Your task to perform on an android device: find which apps use the phone's location Image 0: 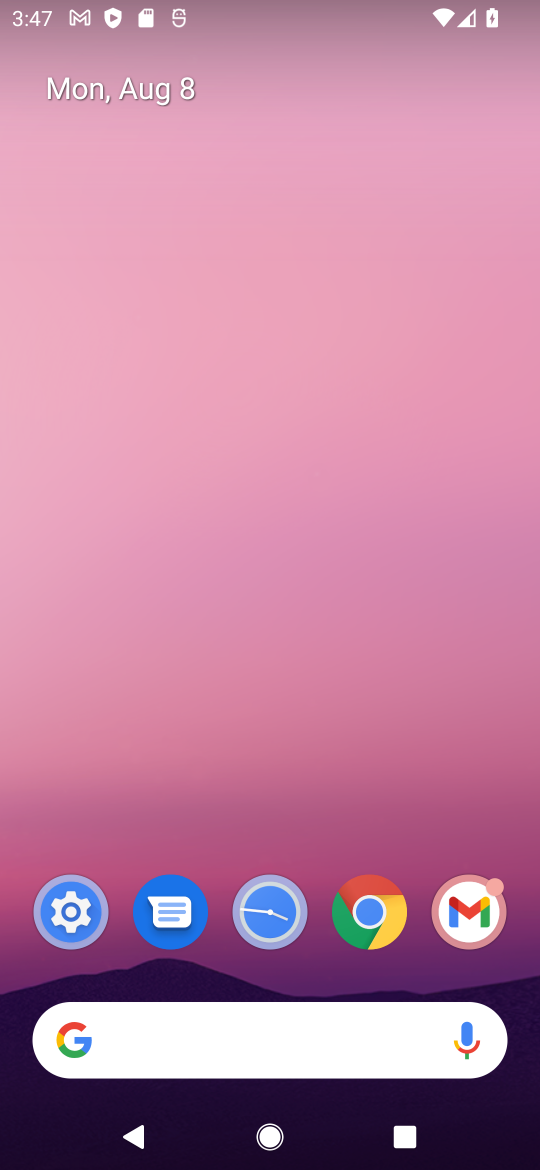
Step 0: drag from (127, 658) to (338, 198)
Your task to perform on an android device: find which apps use the phone's location Image 1: 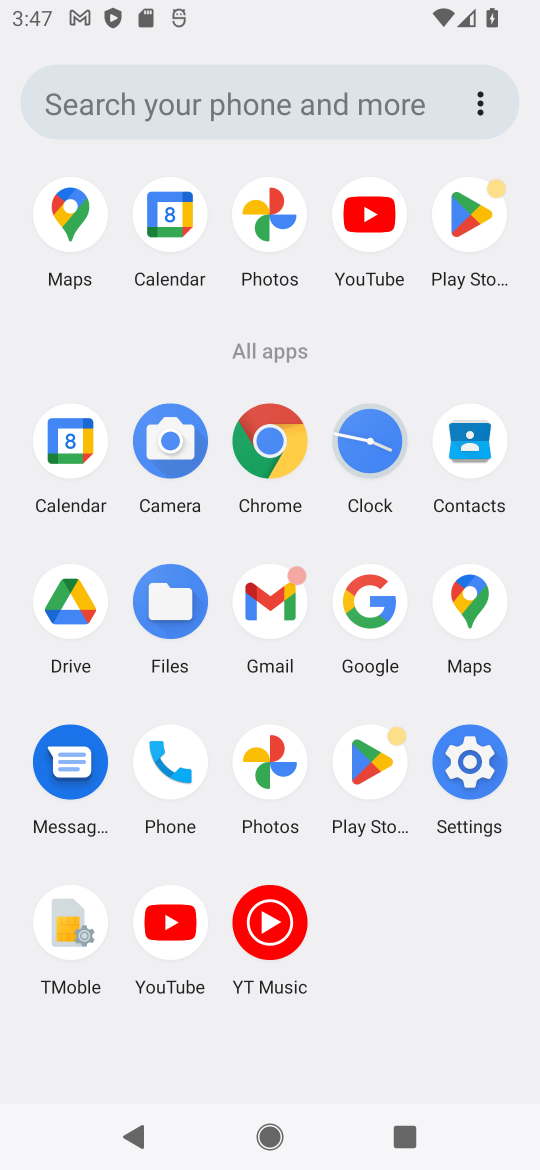
Step 1: click (468, 780)
Your task to perform on an android device: find which apps use the phone's location Image 2: 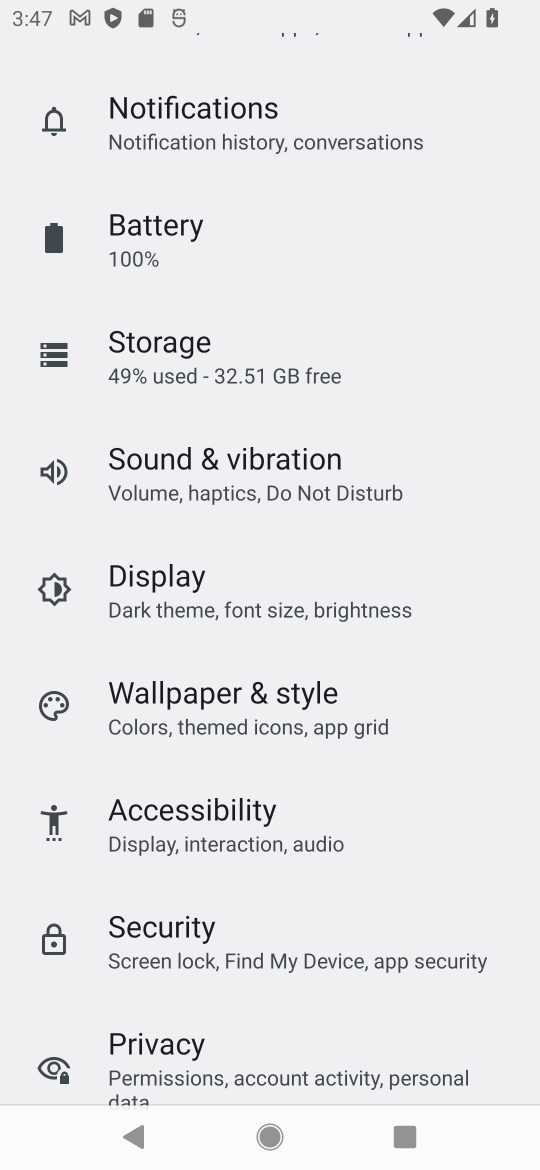
Step 2: drag from (81, 702) to (302, 135)
Your task to perform on an android device: find which apps use the phone's location Image 3: 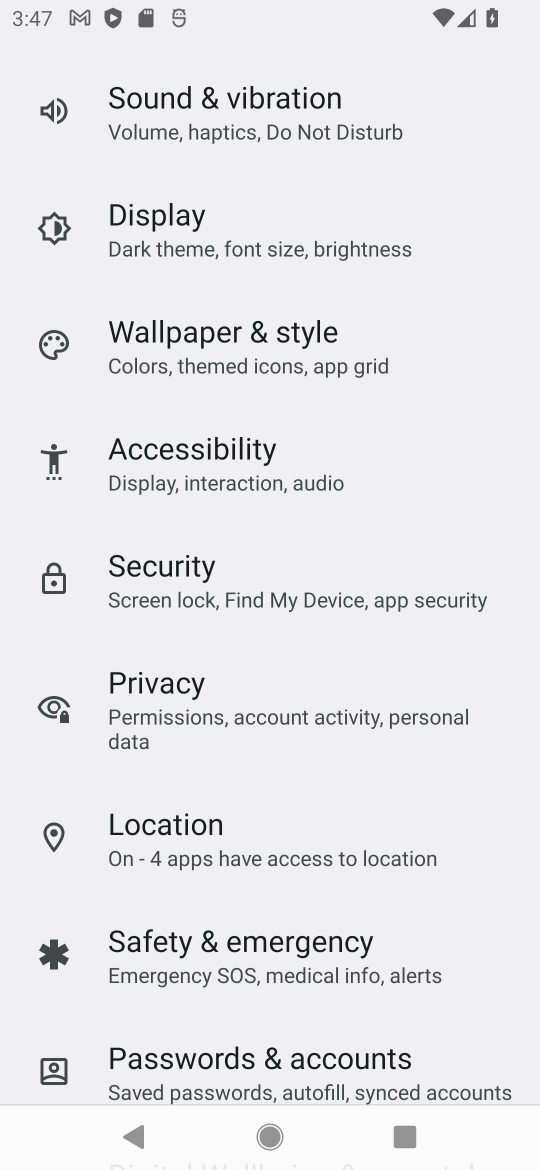
Step 3: click (192, 849)
Your task to perform on an android device: find which apps use the phone's location Image 4: 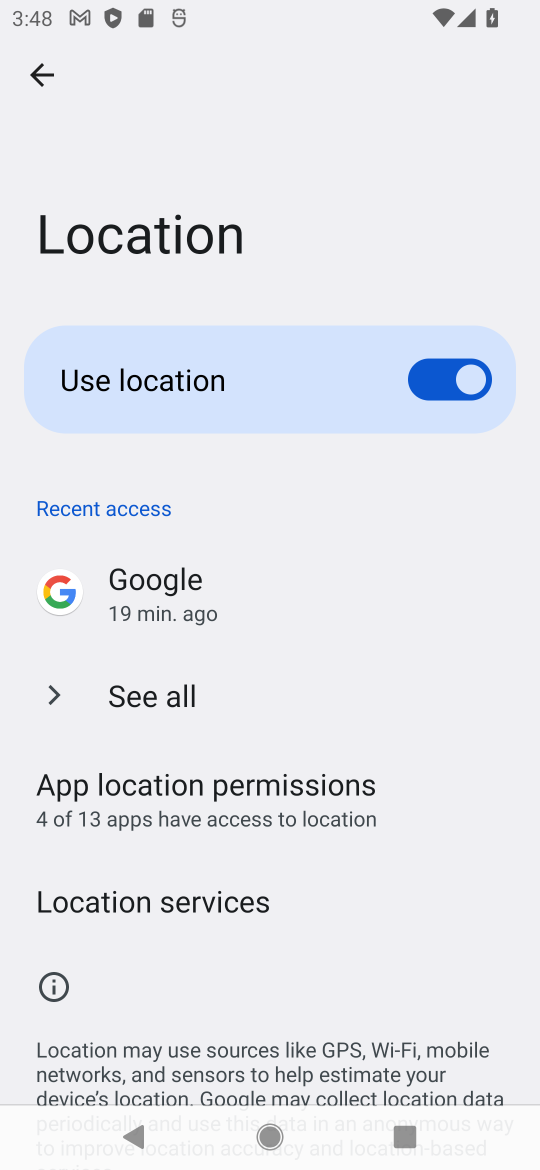
Step 4: click (253, 817)
Your task to perform on an android device: find which apps use the phone's location Image 5: 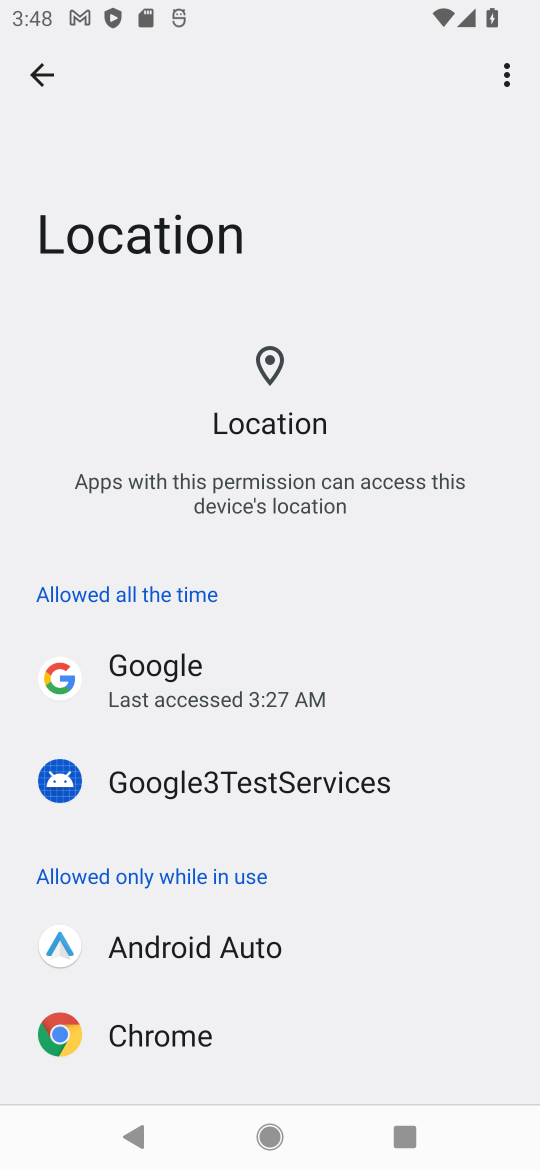
Step 5: task complete